Your task to perform on an android device: Go to battery settings Image 0: 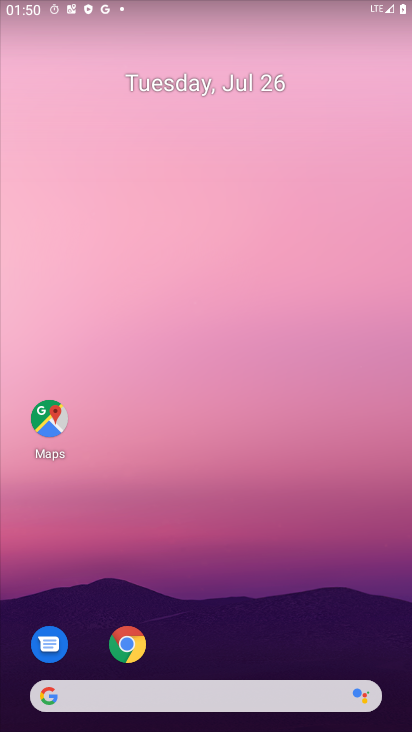
Step 0: drag from (242, 643) to (227, 92)
Your task to perform on an android device: Go to battery settings Image 1: 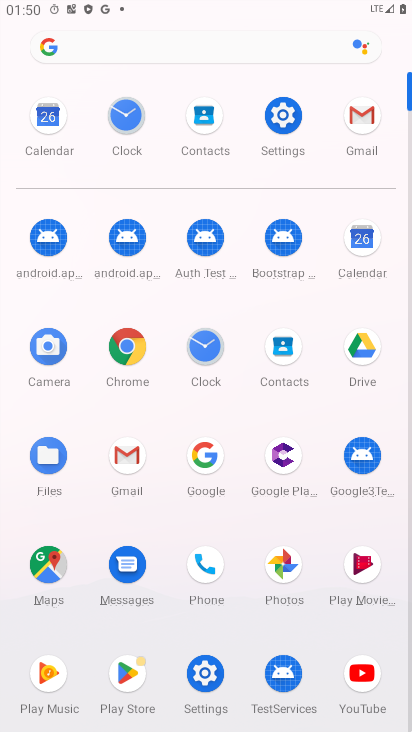
Step 1: click (284, 121)
Your task to perform on an android device: Go to battery settings Image 2: 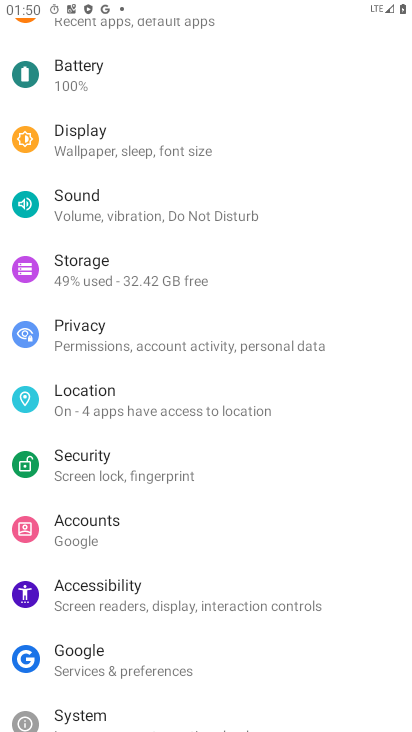
Step 2: click (70, 87)
Your task to perform on an android device: Go to battery settings Image 3: 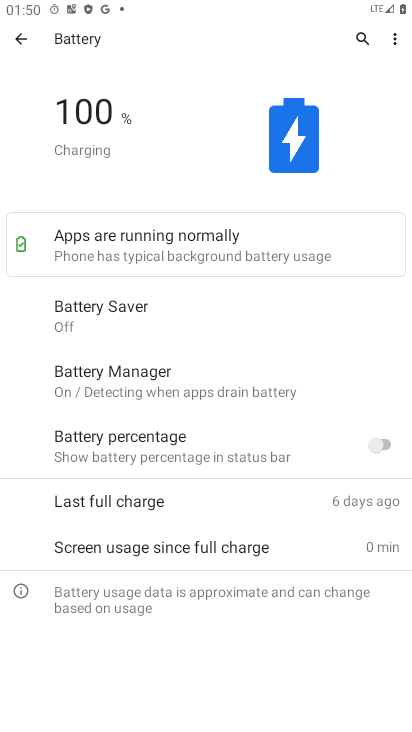
Step 3: task complete